Your task to perform on an android device: toggle location history Image 0: 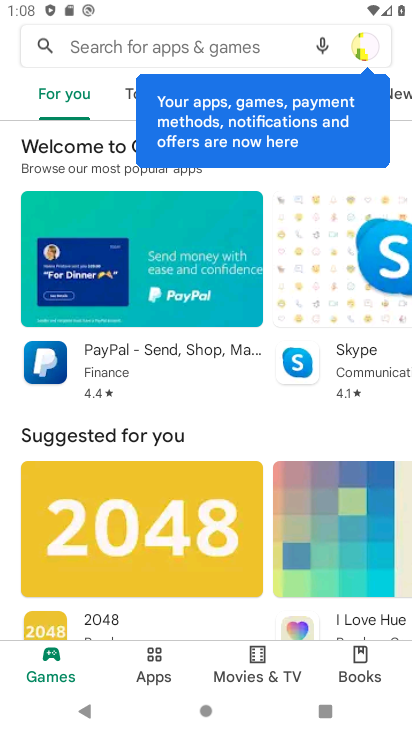
Step 0: press home button
Your task to perform on an android device: toggle location history Image 1: 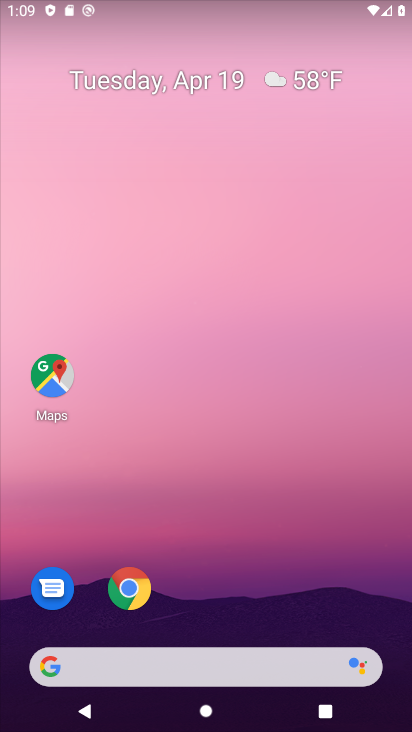
Step 1: drag from (234, 630) to (234, 136)
Your task to perform on an android device: toggle location history Image 2: 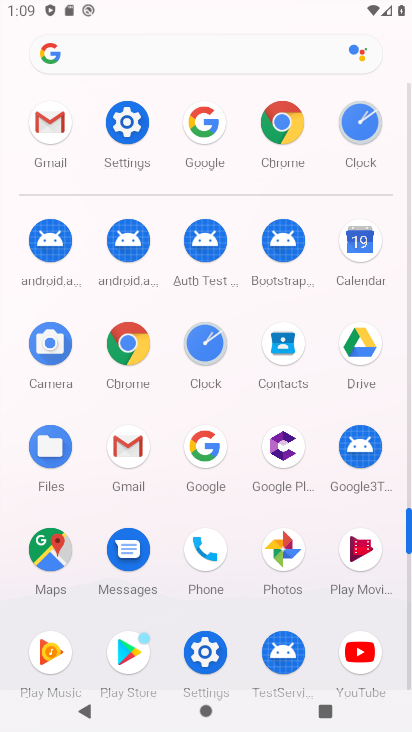
Step 2: click (135, 139)
Your task to perform on an android device: toggle location history Image 3: 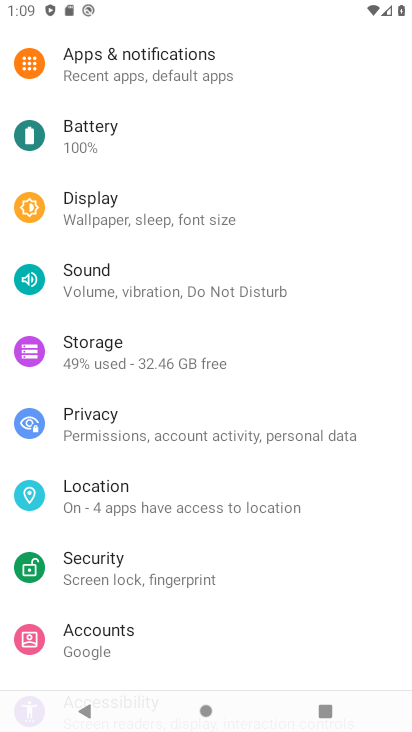
Step 3: click (168, 491)
Your task to perform on an android device: toggle location history Image 4: 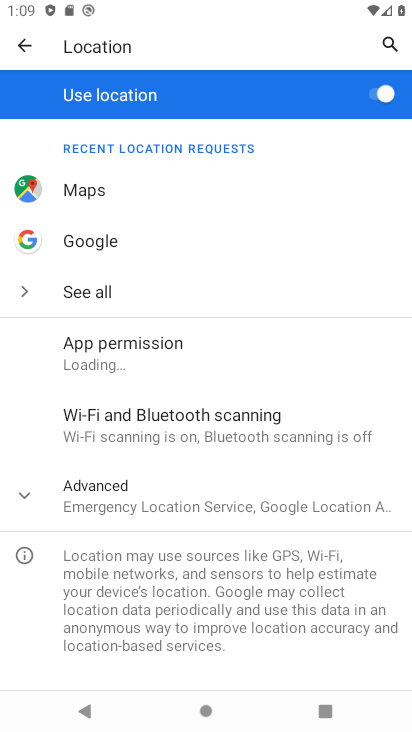
Step 4: drag from (247, 510) to (241, 336)
Your task to perform on an android device: toggle location history Image 5: 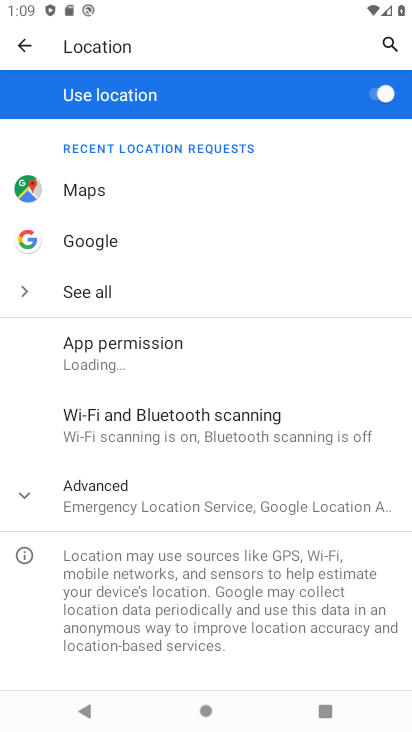
Step 5: click (209, 498)
Your task to perform on an android device: toggle location history Image 6: 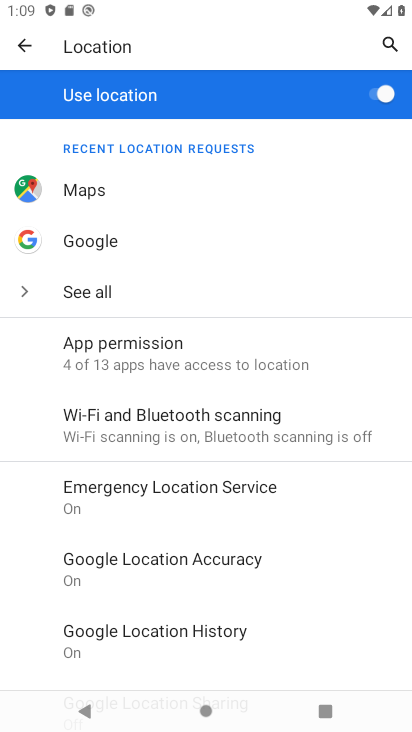
Step 6: click (235, 630)
Your task to perform on an android device: toggle location history Image 7: 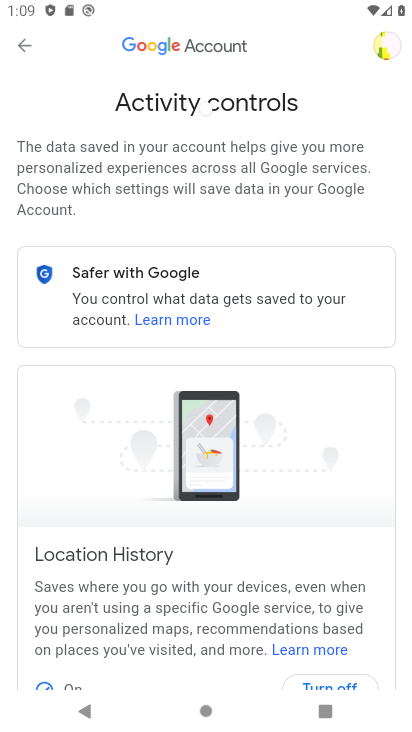
Step 7: drag from (330, 517) to (286, 283)
Your task to perform on an android device: toggle location history Image 8: 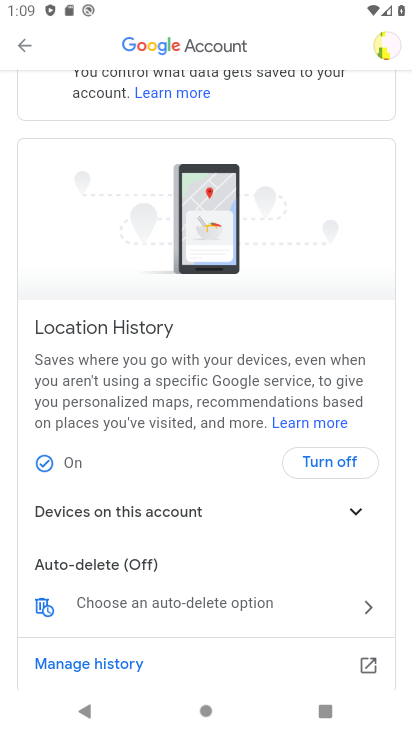
Step 8: click (310, 463)
Your task to perform on an android device: toggle location history Image 9: 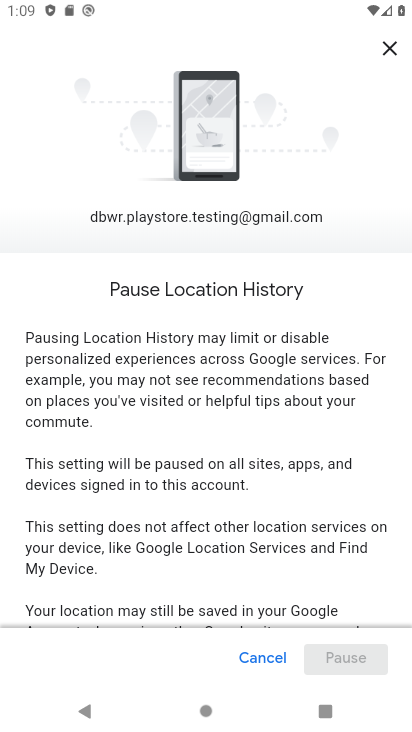
Step 9: drag from (259, 550) to (268, 280)
Your task to perform on an android device: toggle location history Image 10: 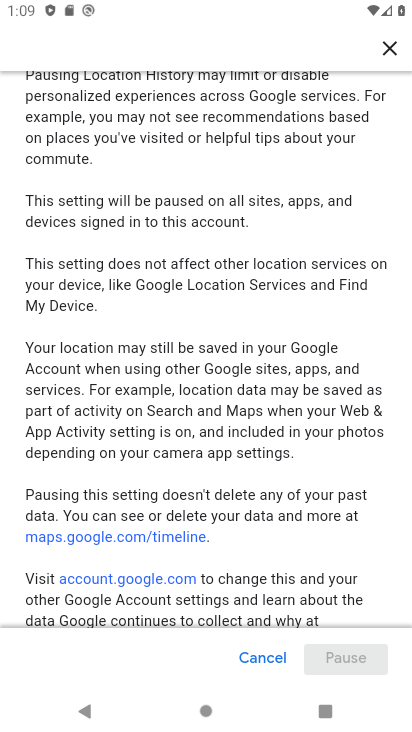
Step 10: drag from (257, 552) to (245, 289)
Your task to perform on an android device: toggle location history Image 11: 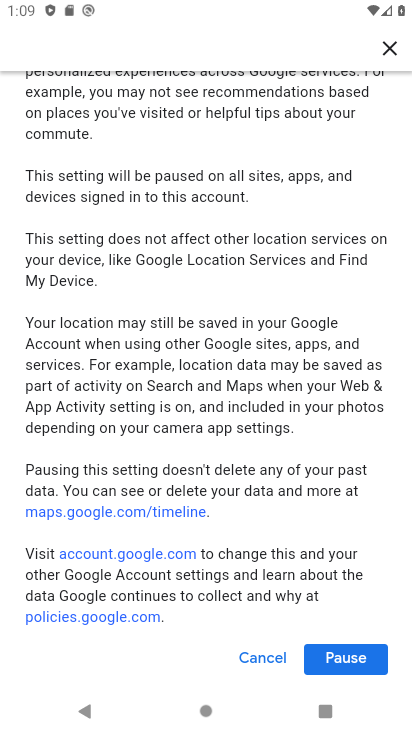
Step 11: click (358, 656)
Your task to perform on an android device: toggle location history Image 12: 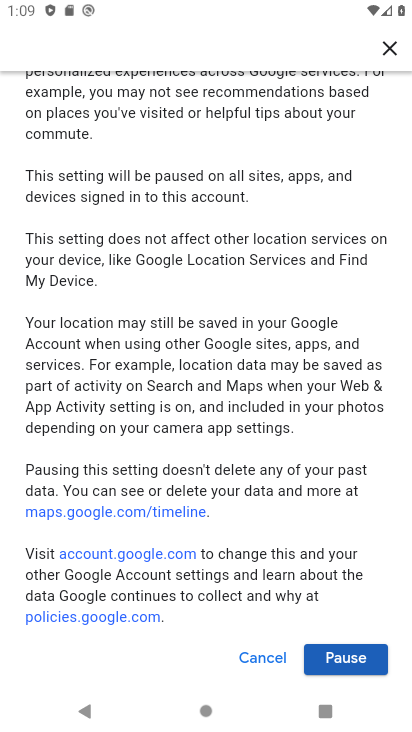
Step 12: click (350, 652)
Your task to perform on an android device: toggle location history Image 13: 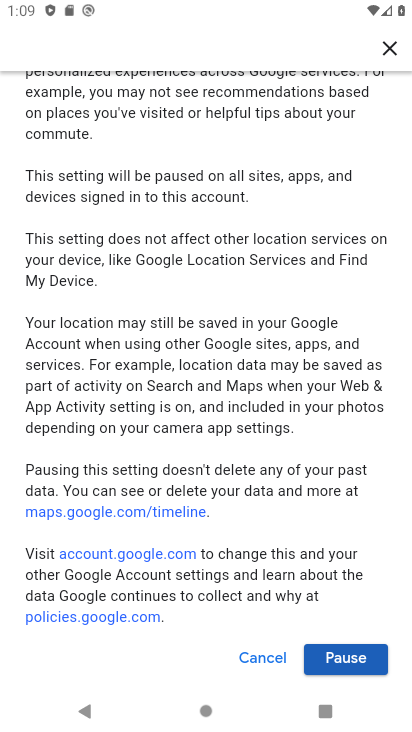
Step 13: click (354, 654)
Your task to perform on an android device: toggle location history Image 14: 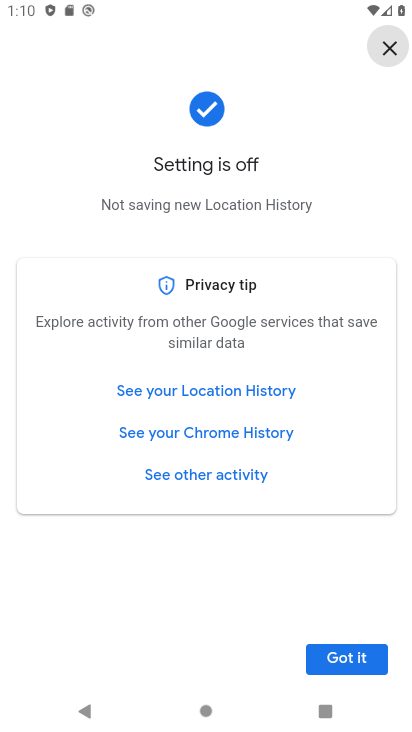
Step 14: task complete